Your task to perform on an android device: find which apps use the phone's location Image 0: 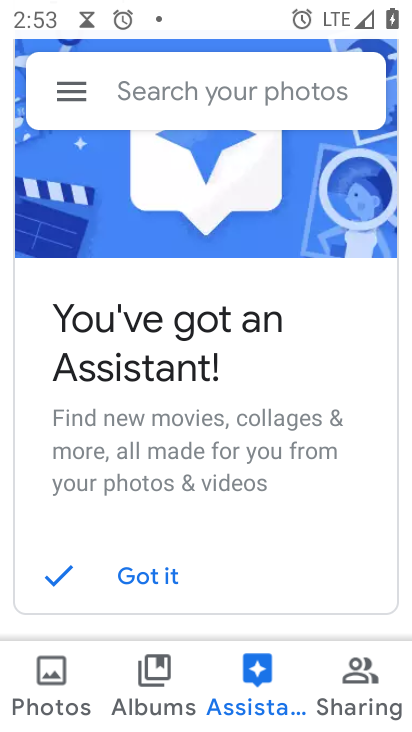
Step 0: press back button
Your task to perform on an android device: find which apps use the phone's location Image 1: 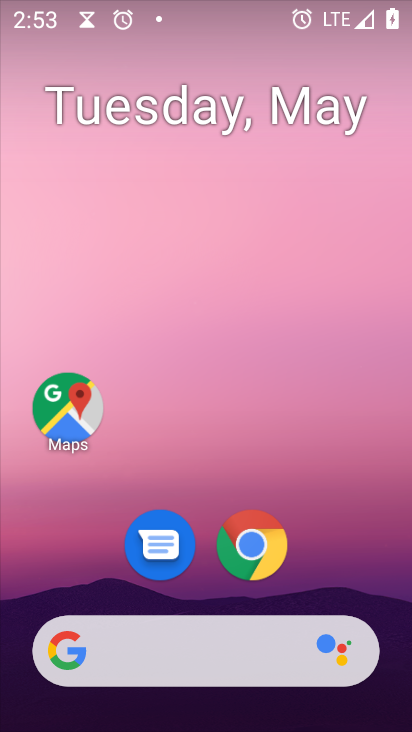
Step 1: drag from (345, 558) to (259, 16)
Your task to perform on an android device: find which apps use the phone's location Image 2: 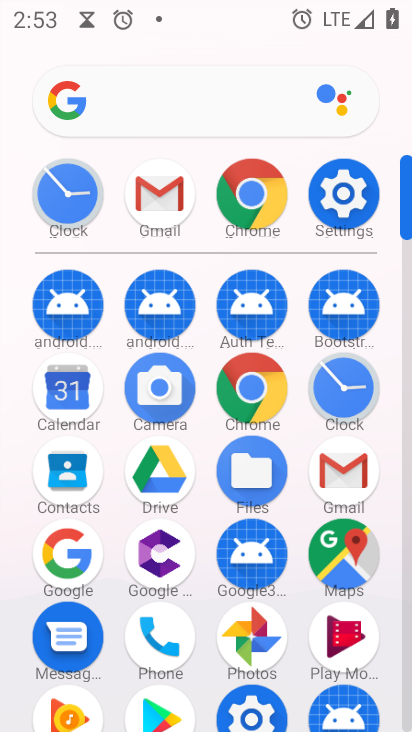
Step 2: drag from (7, 548) to (14, 246)
Your task to perform on an android device: find which apps use the phone's location Image 3: 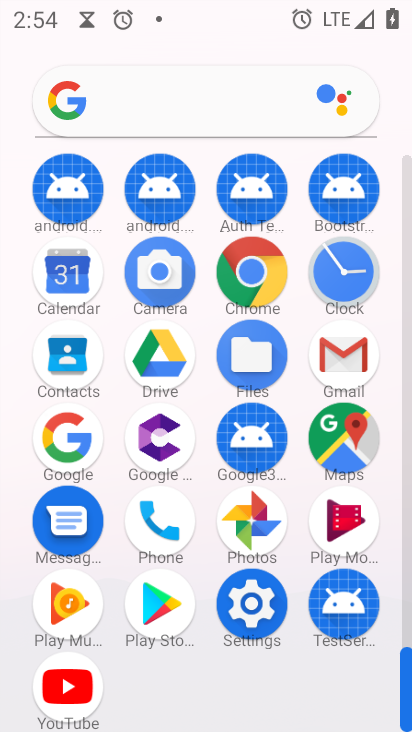
Step 3: drag from (13, 566) to (12, 300)
Your task to perform on an android device: find which apps use the phone's location Image 4: 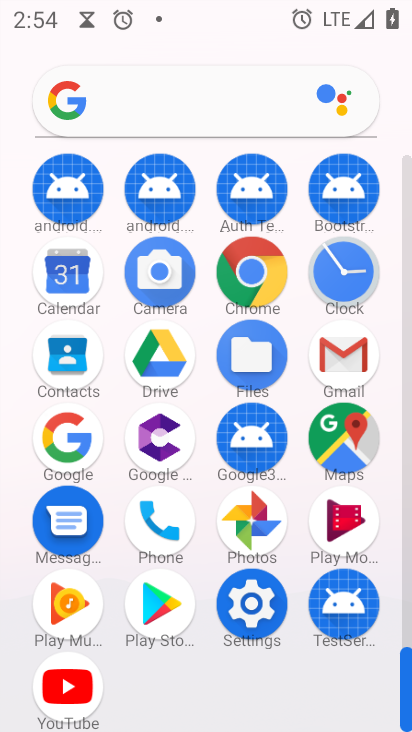
Step 4: click (253, 599)
Your task to perform on an android device: find which apps use the phone's location Image 5: 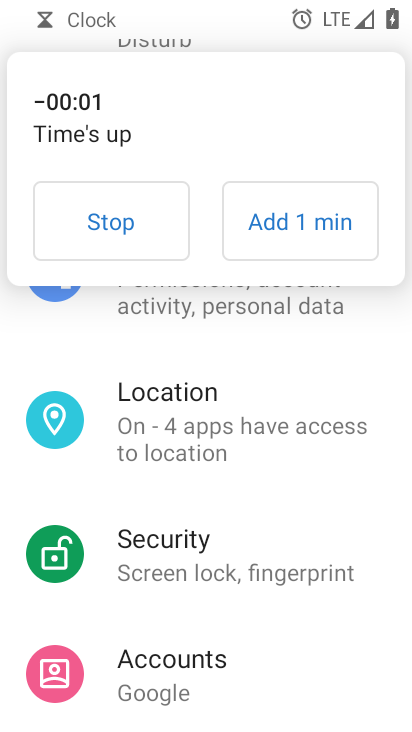
Step 5: click (160, 231)
Your task to perform on an android device: find which apps use the phone's location Image 6: 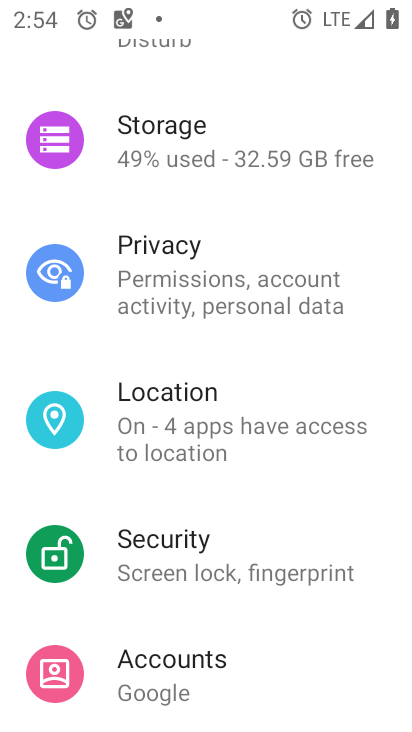
Step 6: drag from (219, 593) to (240, 159)
Your task to perform on an android device: find which apps use the phone's location Image 7: 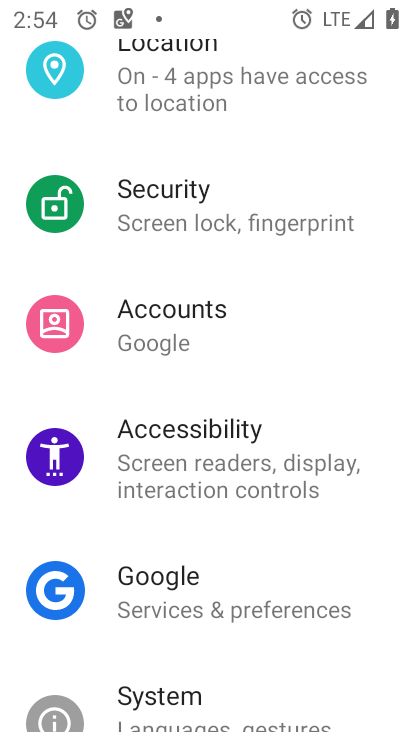
Step 7: drag from (214, 586) to (241, 232)
Your task to perform on an android device: find which apps use the phone's location Image 8: 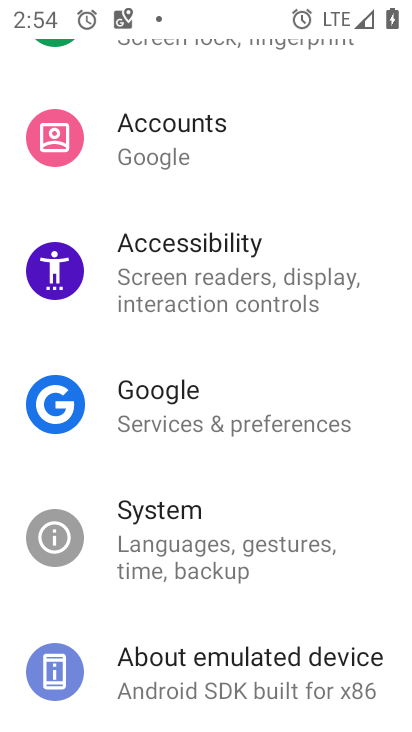
Step 8: drag from (245, 180) to (203, 645)
Your task to perform on an android device: find which apps use the phone's location Image 9: 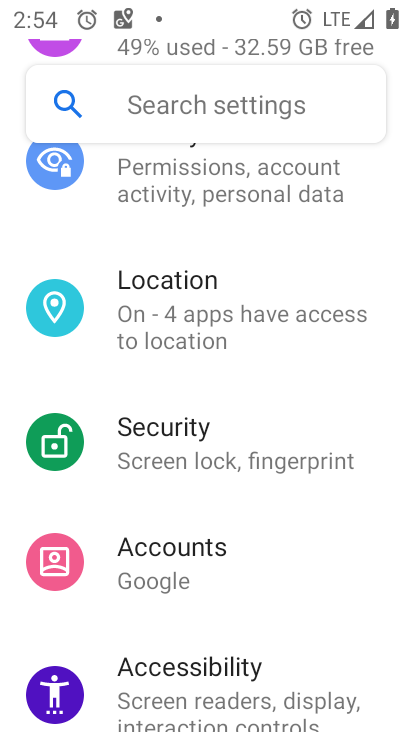
Step 9: click (200, 260)
Your task to perform on an android device: find which apps use the phone's location Image 10: 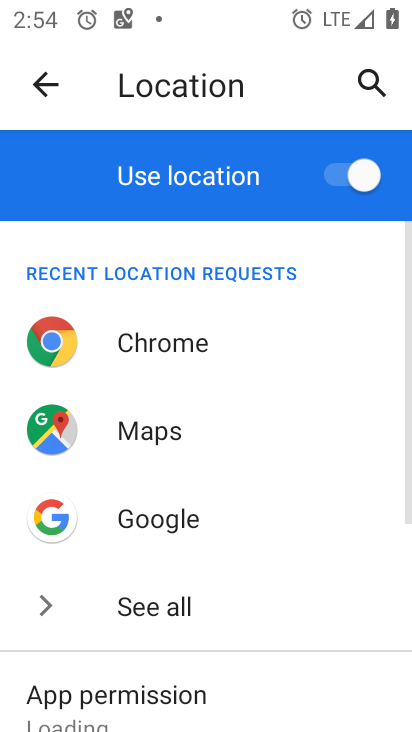
Step 10: drag from (231, 598) to (253, 227)
Your task to perform on an android device: find which apps use the phone's location Image 11: 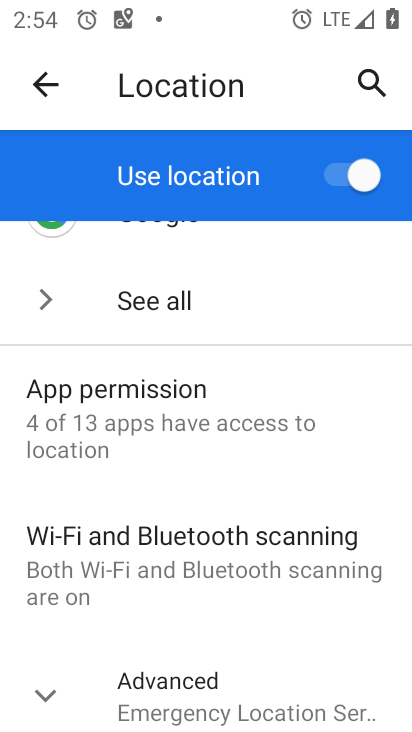
Step 11: click (159, 405)
Your task to perform on an android device: find which apps use the phone's location Image 12: 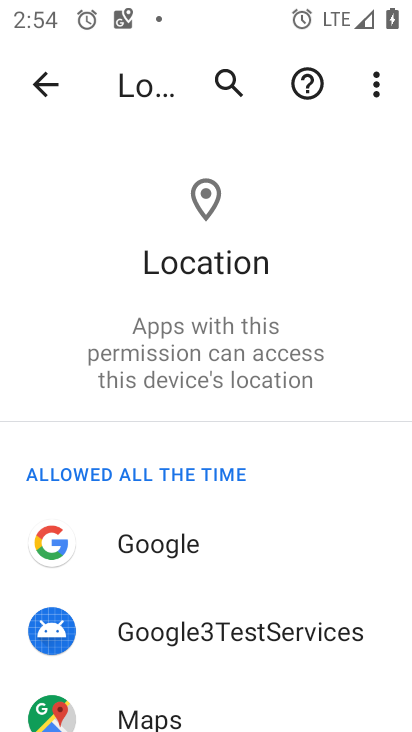
Step 12: task complete